Your task to perform on an android device: install app "Pinterest" Image 0: 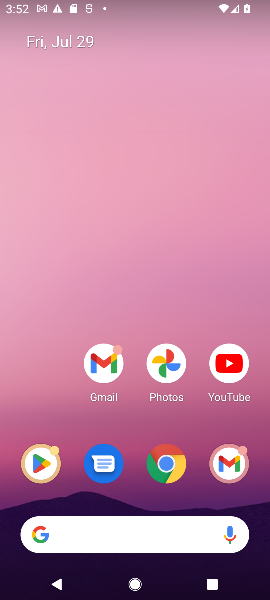
Step 0: drag from (103, 535) to (117, 21)
Your task to perform on an android device: install app "Pinterest" Image 1: 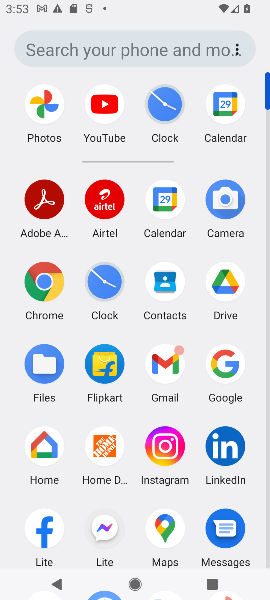
Step 1: drag from (121, 488) to (134, 195)
Your task to perform on an android device: install app "Pinterest" Image 2: 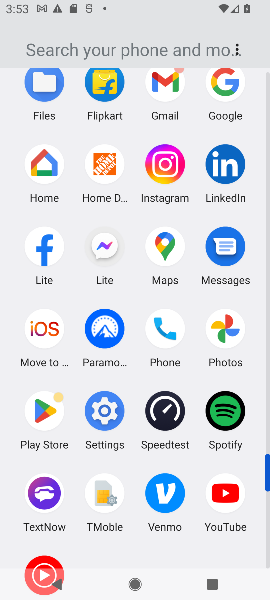
Step 2: click (50, 413)
Your task to perform on an android device: install app "Pinterest" Image 3: 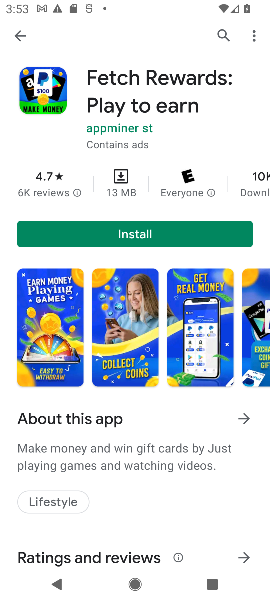
Step 3: click (223, 37)
Your task to perform on an android device: install app "Pinterest" Image 4: 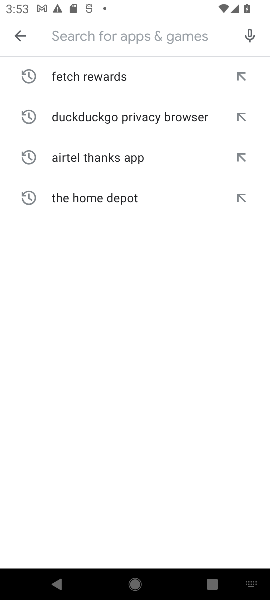
Step 4: type "Pinterest"
Your task to perform on an android device: install app "Pinterest" Image 5: 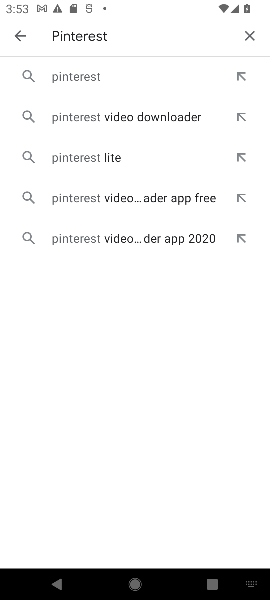
Step 5: click (86, 77)
Your task to perform on an android device: install app "Pinterest" Image 6: 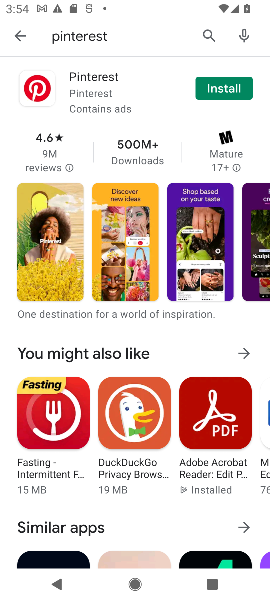
Step 6: click (209, 89)
Your task to perform on an android device: install app "Pinterest" Image 7: 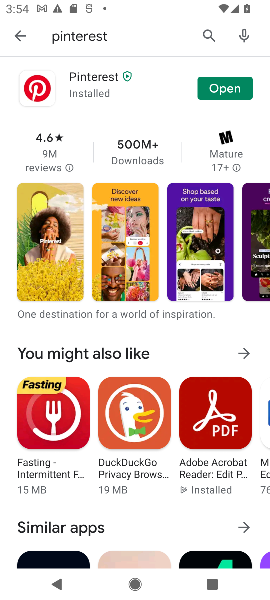
Step 7: task complete